Your task to perform on an android device: Go to privacy settings Image 0: 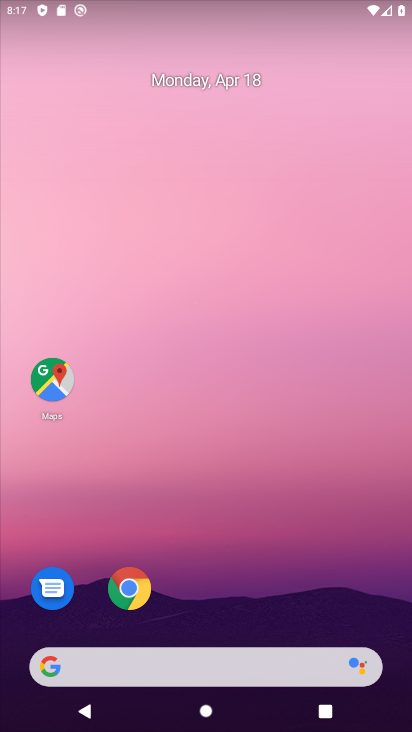
Step 0: click (123, 587)
Your task to perform on an android device: Go to privacy settings Image 1: 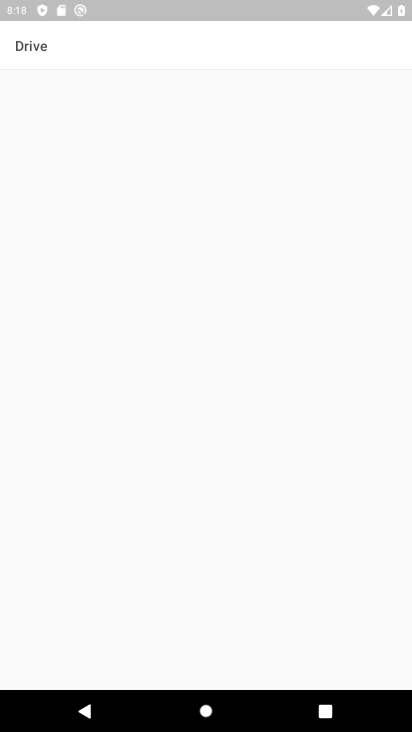
Step 1: press home button
Your task to perform on an android device: Go to privacy settings Image 2: 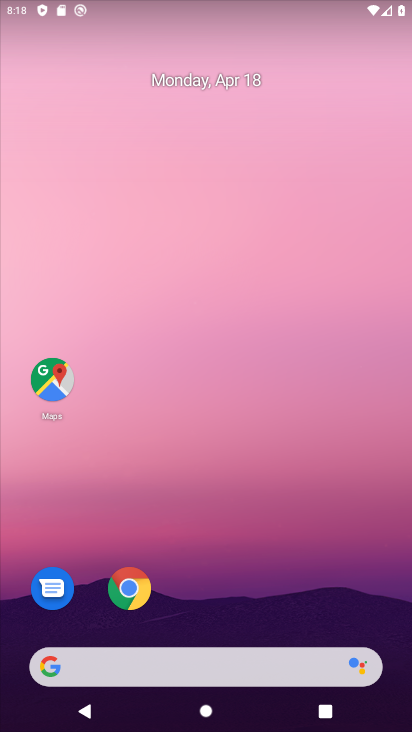
Step 2: drag from (230, 591) to (261, 39)
Your task to perform on an android device: Go to privacy settings Image 3: 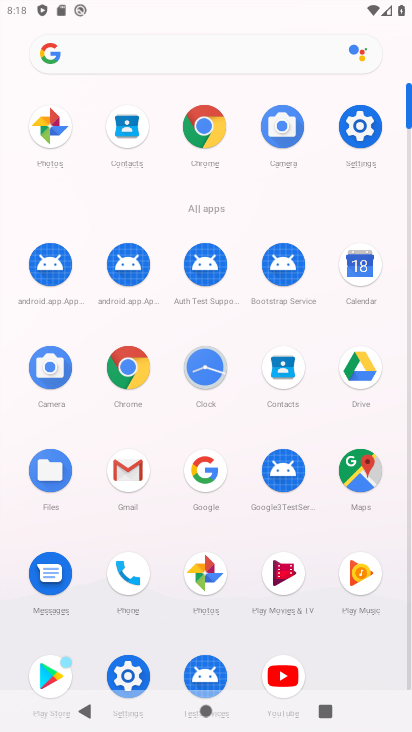
Step 3: click (130, 380)
Your task to perform on an android device: Go to privacy settings Image 4: 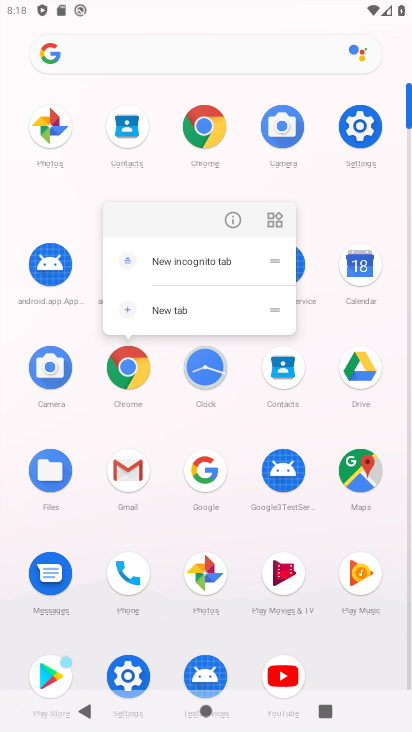
Step 4: click (130, 380)
Your task to perform on an android device: Go to privacy settings Image 5: 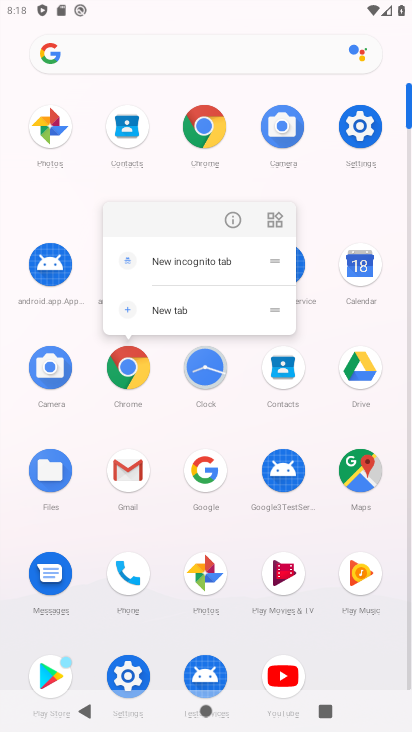
Step 5: click (130, 380)
Your task to perform on an android device: Go to privacy settings Image 6: 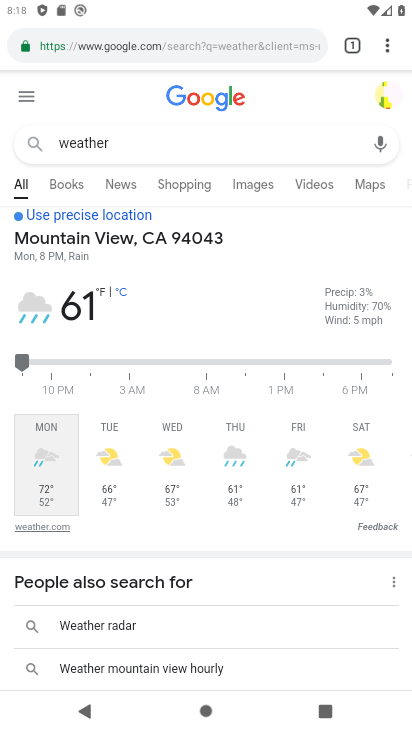
Step 6: click (386, 49)
Your task to perform on an android device: Go to privacy settings Image 7: 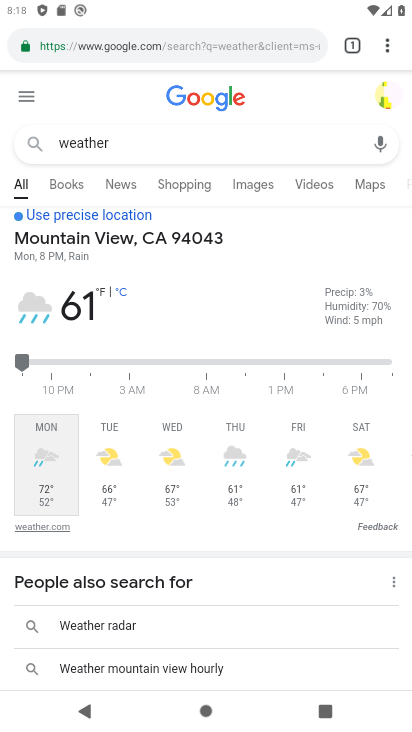
Step 7: click (386, 44)
Your task to perform on an android device: Go to privacy settings Image 8: 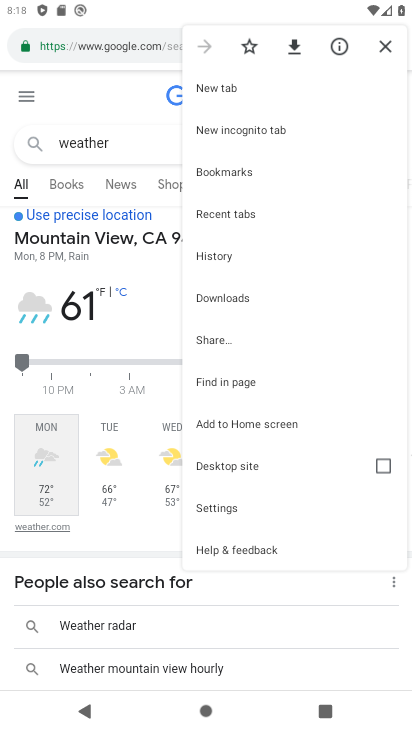
Step 8: click (232, 503)
Your task to perform on an android device: Go to privacy settings Image 9: 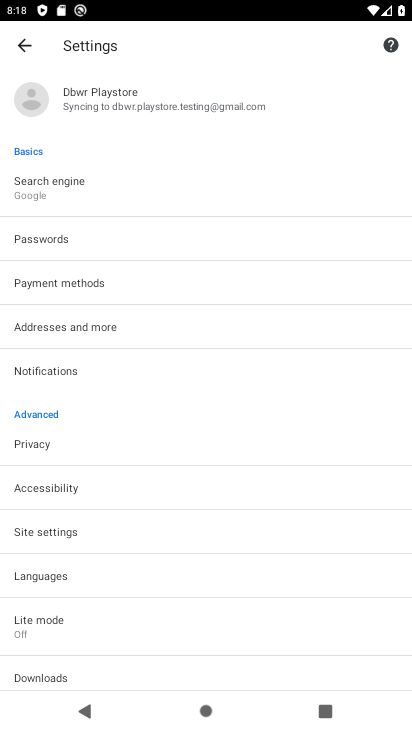
Step 9: click (32, 436)
Your task to perform on an android device: Go to privacy settings Image 10: 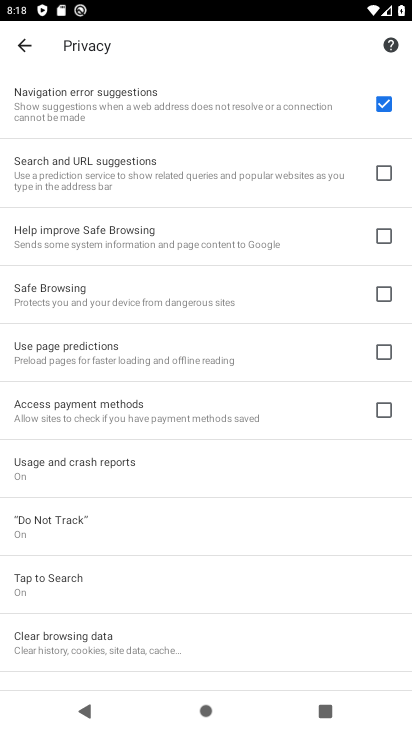
Step 10: task complete